Your task to perform on an android device: What's on my calendar tomorrow? Image 0: 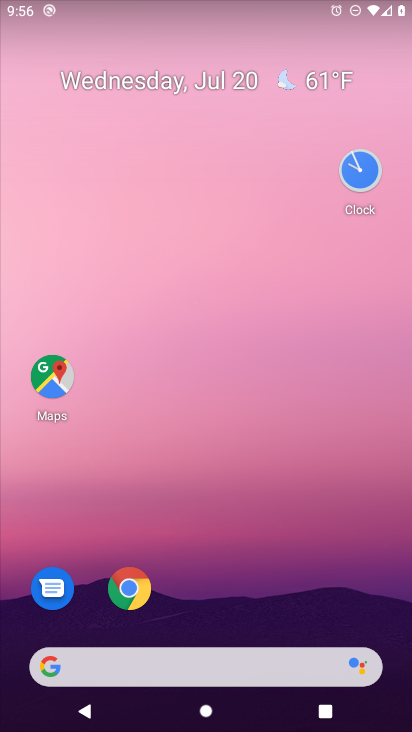
Step 0: drag from (51, 671) to (241, 185)
Your task to perform on an android device: What's on my calendar tomorrow? Image 1: 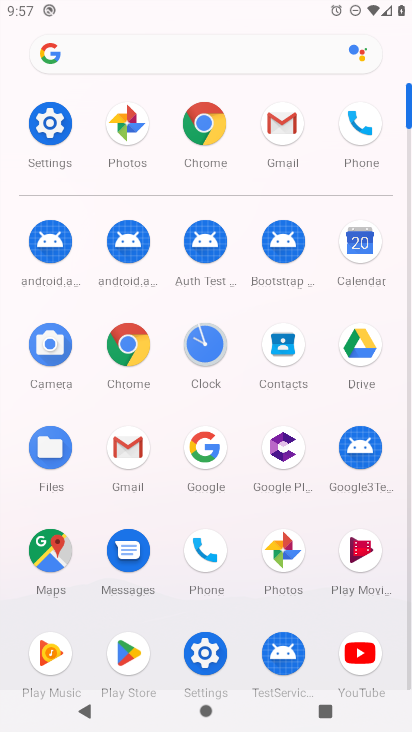
Step 1: click (367, 233)
Your task to perform on an android device: What's on my calendar tomorrow? Image 2: 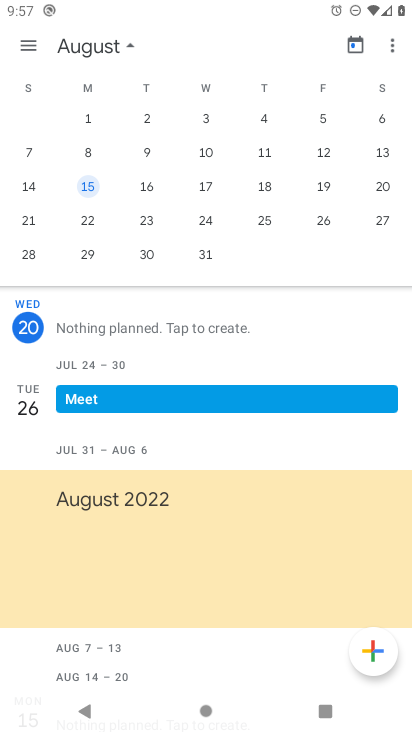
Step 2: task complete